Your task to perform on an android device: Search for 'The Girl on the Train' on Goodreads. Image 0: 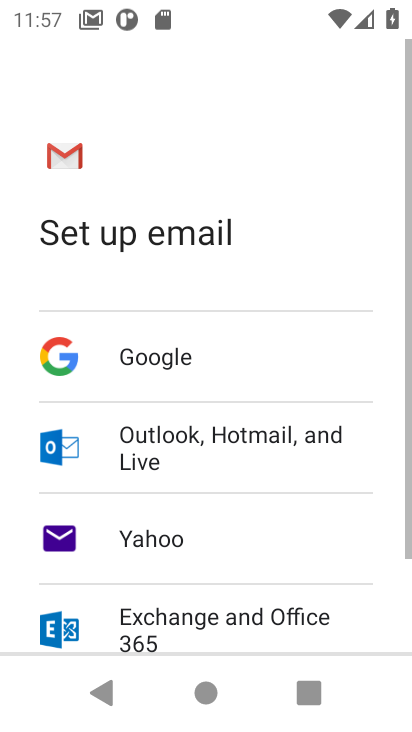
Step 0: press home button
Your task to perform on an android device: Search for 'The Girl on the Train' on Goodreads. Image 1: 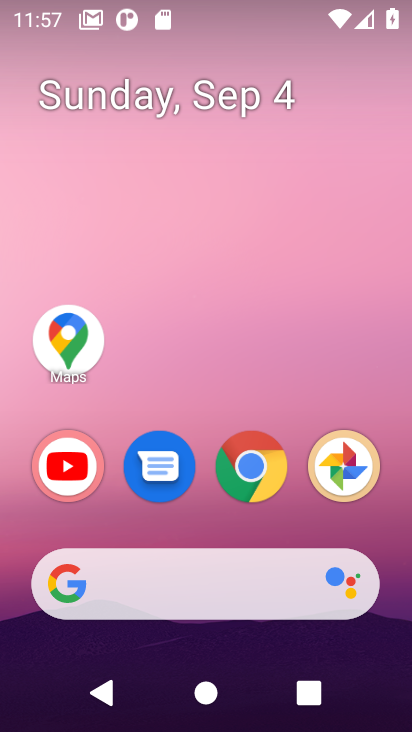
Step 1: drag from (207, 427) to (198, 0)
Your task to perform on an android device: Search for 'The Girl on the Train' on Goodreads. Image 2: 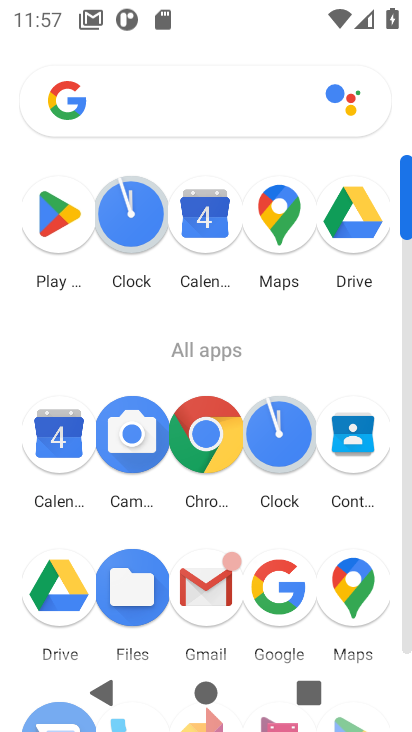
Step 2: click (199, 421)
Your task to perform on an android device: Search for 'The Girl on the Train' on Goodreads. Image 3: 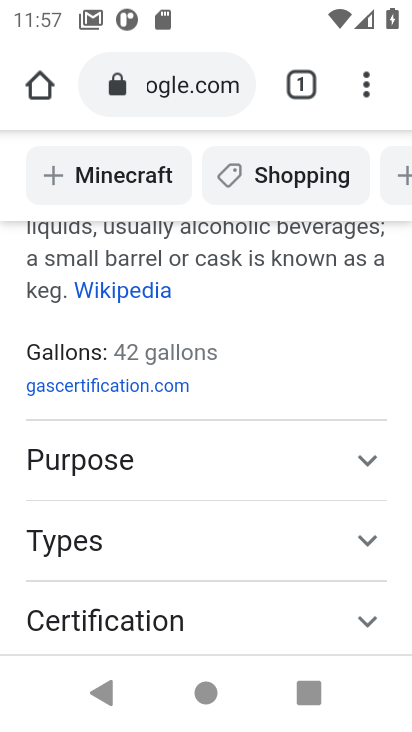
Step 3: click (164, 80)
Your task to perform on an android device: Search for 'The Girl on the Train' on Goodreads. Image 4: 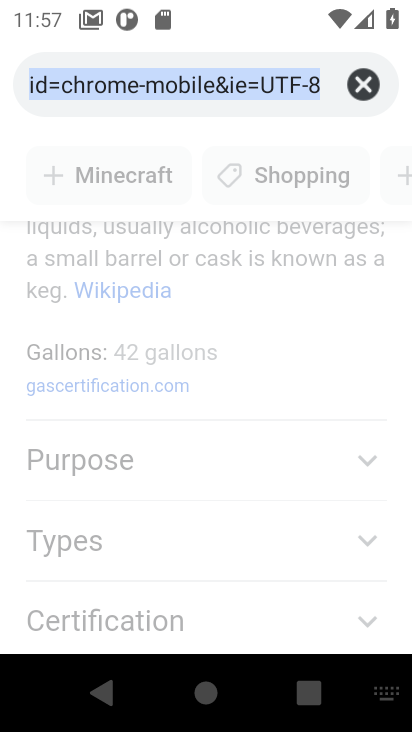
Step 4: click (368, 76)
Your task to perform on an android device: Search for 'The Girl on the Train' on Goodreads. Image 5: 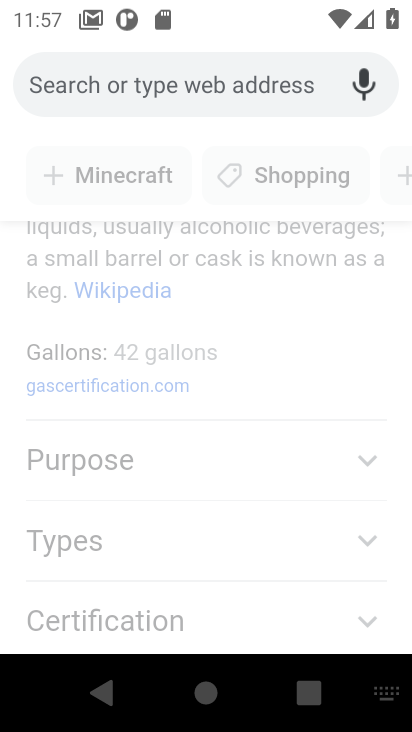
Step 5: type "Goodreads"
Your task to perform on an android device: Search for 'The Girl on the Train' on Goodreads. Image 6: 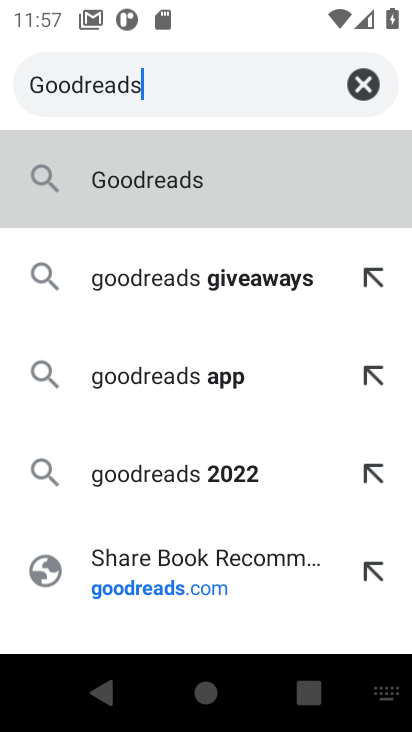
Step 6: click (182, 185)
Your task to perform on an android device: Search for 'The Girl on the Train' on Goodreads. Image 7: 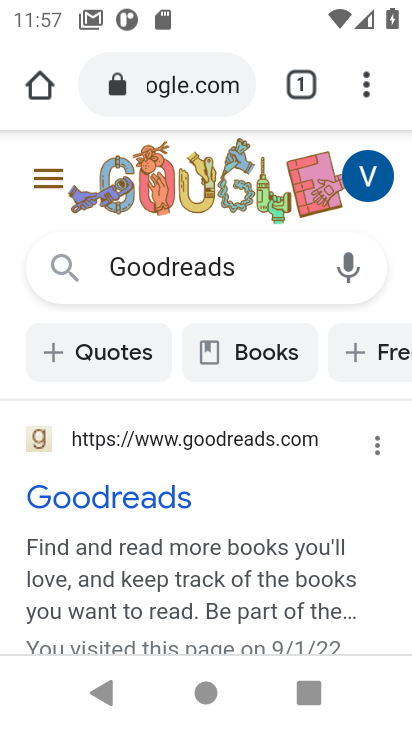
Step 7: click (131, 500)
Your task to perform on an android device: Search for 'The Girl on the Train' on Goodreads. Image 8: 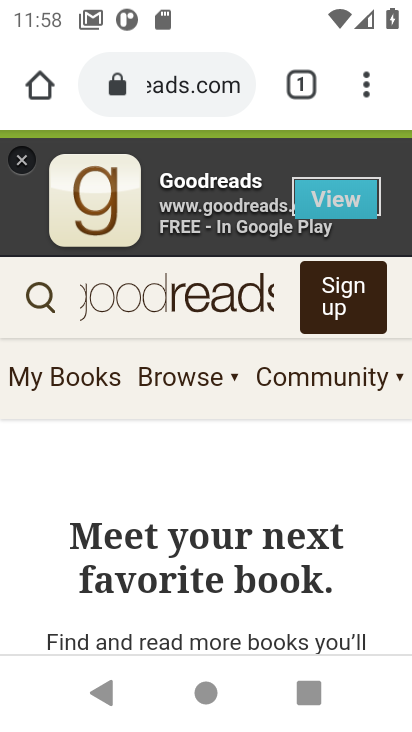
Step 8: click (38, 295)
Your task to perform on an android device: Search for 'The Girl on the Train' on Goodreads. Image 9: 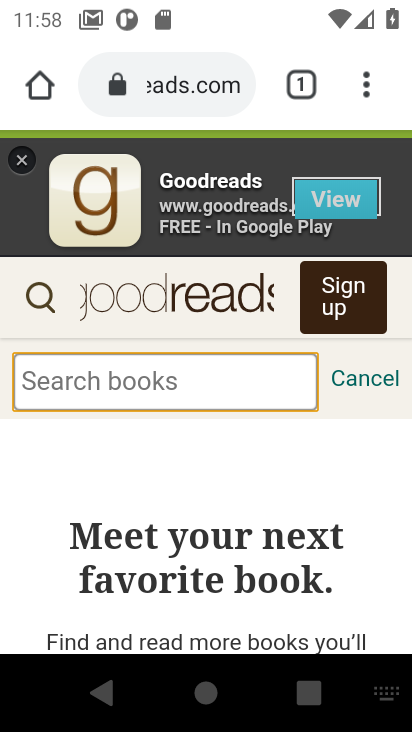
Step 9: type "the Girl on the Train"
Your task to perform on an android device: Search for 'The Girl on the Train' on Goodreads. Image 10: 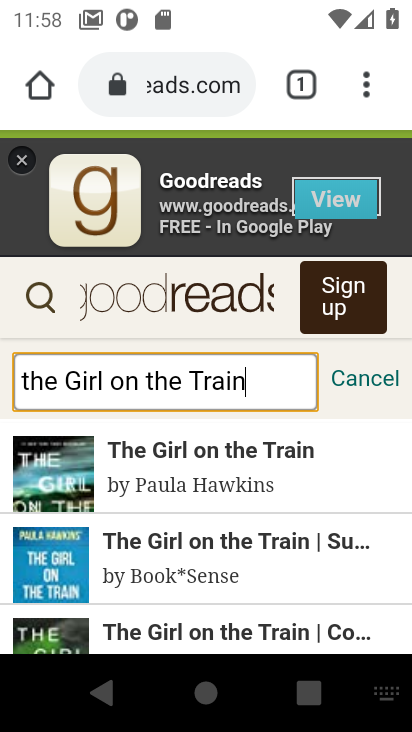
Step 10: click (223, 457)
Your task to perform on an android device: Search for 'The Girl on the Train' on Goodreads. Image 11: 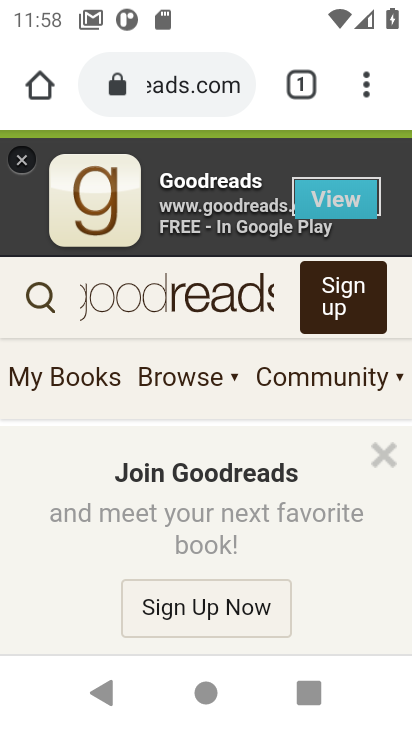
Step 11: task complete